Your task to perform on an android device: Do I have any events tomorrow? Image 0: 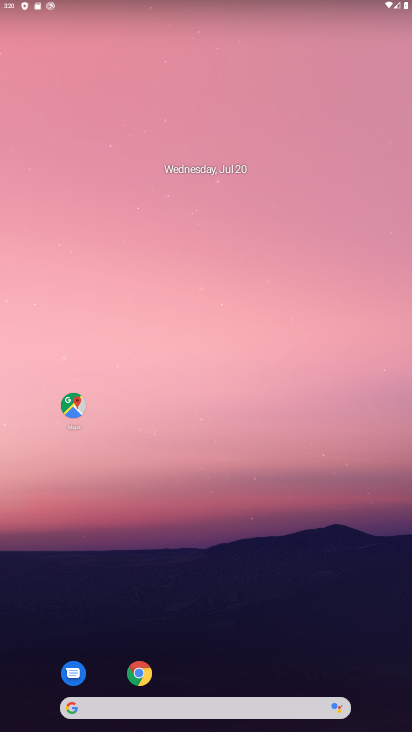
Step 0: drag from (265, 388) to (293, 190)
Your task to perform on an android device: Do I have any events tomorrow? Image 1: 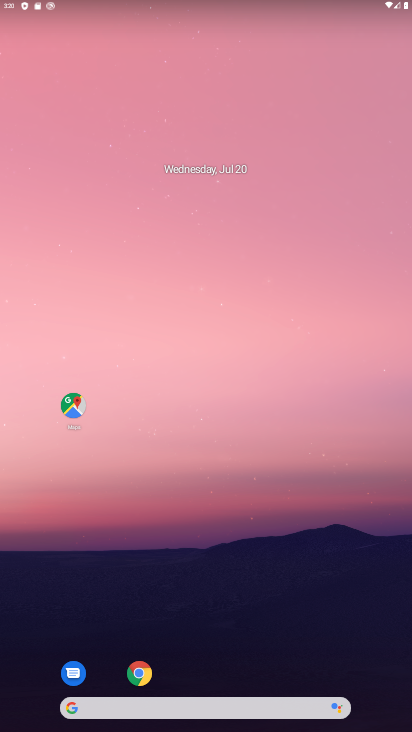
Step 1: drag from (378, 354) to (407, 160)
Your task to perform on an android device: Do I have any events tomorrow? Image 2: 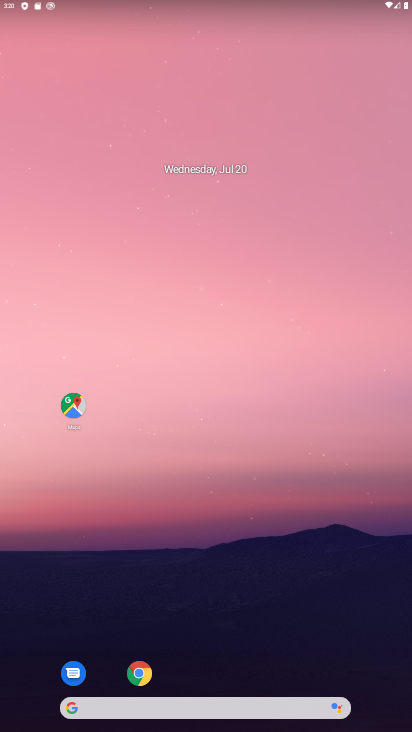
Step 2: drag from (283, 563) to (341, 119)
Your task to perform on an android device: Do I have any events tomorrow? Image 3: 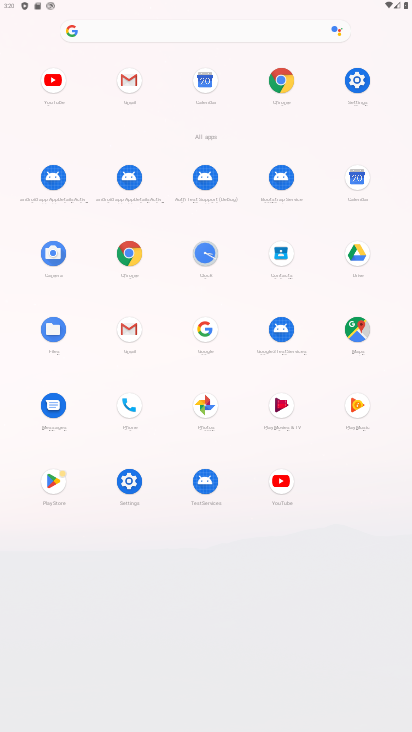
Step 3: click (350, 180)
Your task to perform on an android device: Do I have any events tomorrow? Image 4: 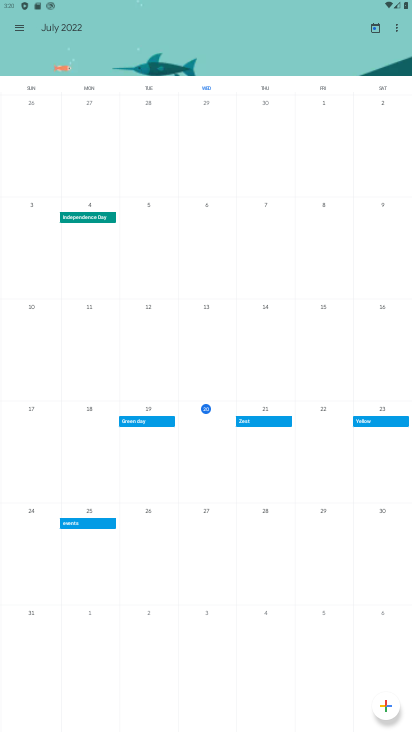
Step 4: task complete